Your task to perform on an android device: change alarm snooze length Image 0: 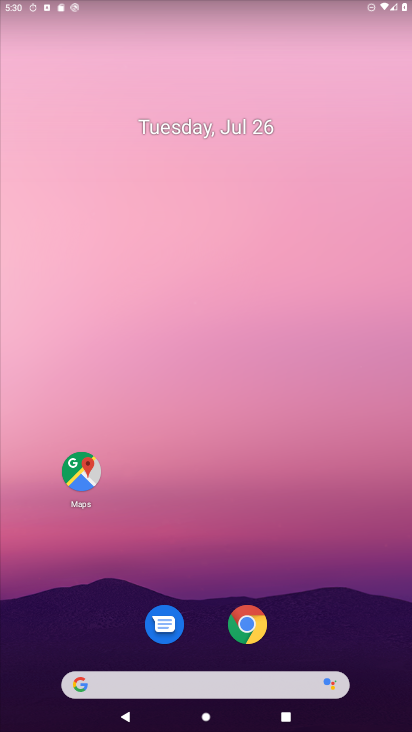
Step 0: drag from (195, 657) to (300, 5)
Your task to perform on an android device: change alarm snooze length Image 1: 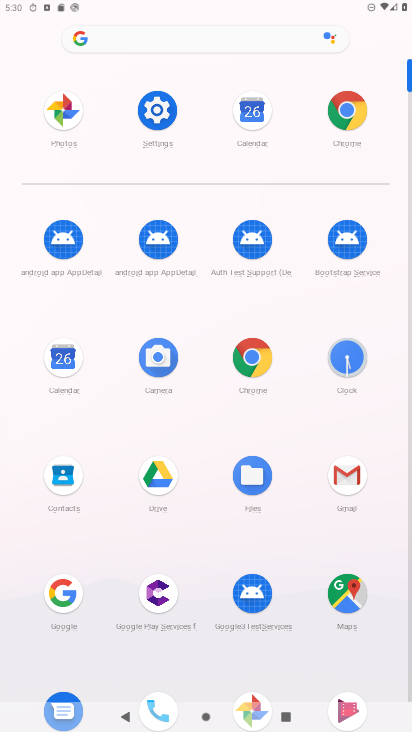
Step 1: click (154, 107)
Your task to perform on an android device: change alarm snooze length Image 2: 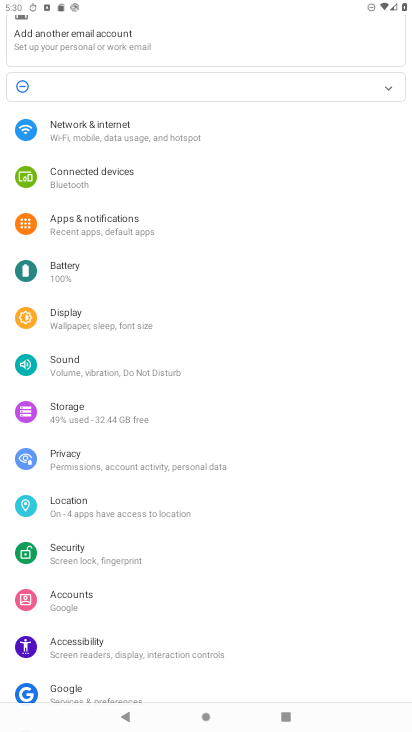
Step 2: press home button
Your task to perform on an android device: change alarm snooze length Image 3: 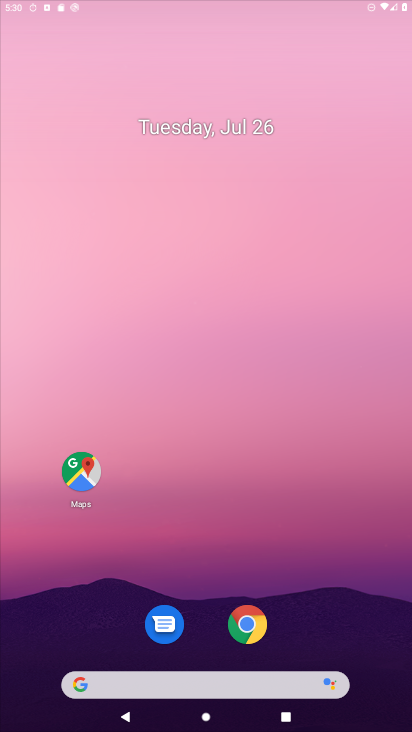
Step 3: drag from (227, 690) to (289, 19)
Your task to perform on an android device: change alarm snooze length Image 4: 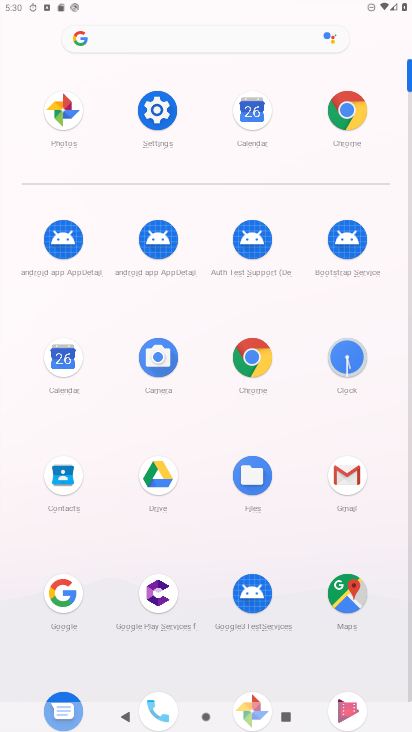
Step 4: click (344, 356)
Your task to perform on an android device: change alarm snooze length Image 5: 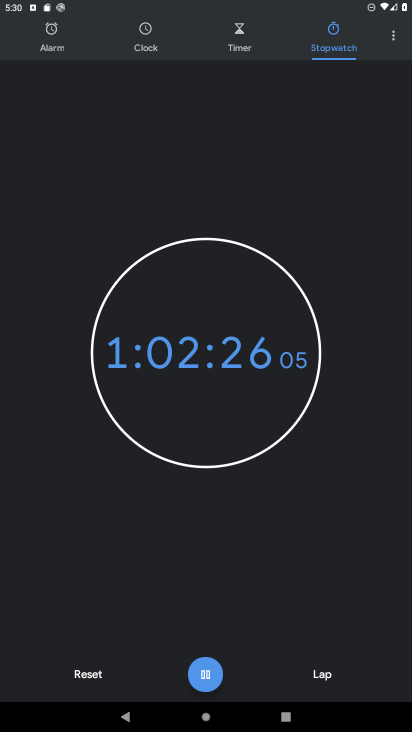
Step 5: click (389, 36)
Your task to perform on an android device: change alarm snooze length Image 6: 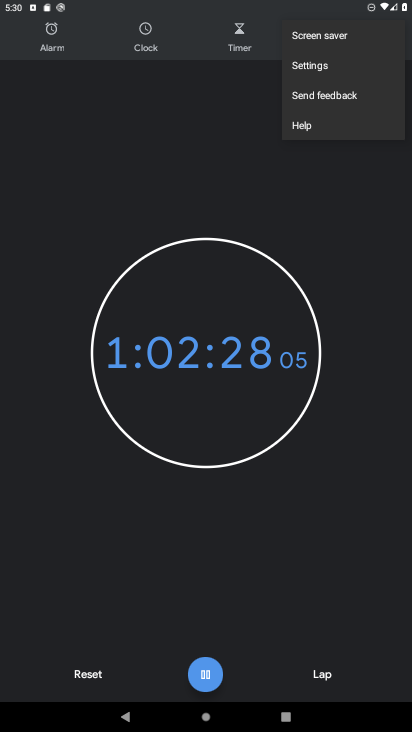
Step 6: click (330, 60)
Your task to perform on an android device: change alarm snooze length Image 7: 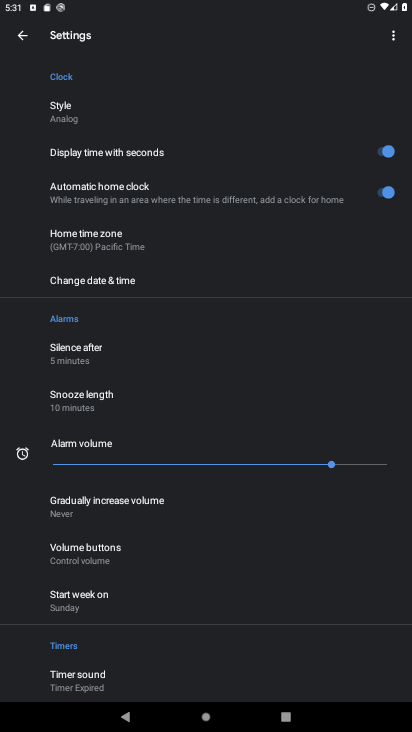
Step 7: click (97, 397)
Your task to perform on an android device: change alarm snooze length Image 8: 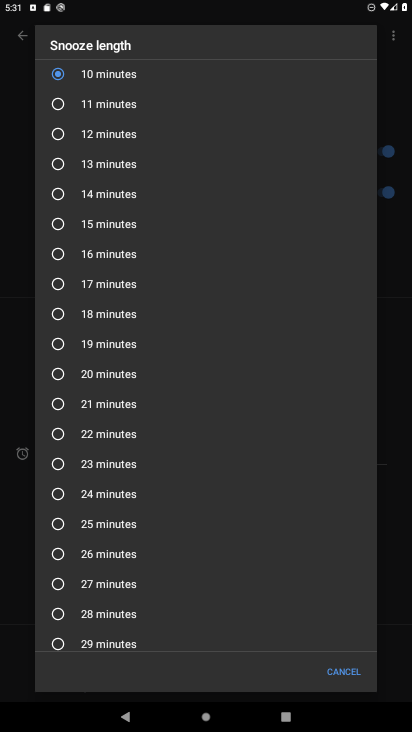
Step 8: click (54, 109)
Your task to perform on an android device: change alarm snooze length Image 9: 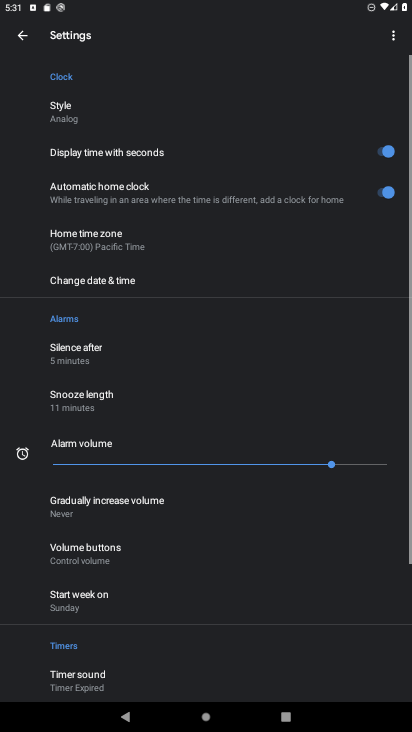
Step 9: task complete